Your task to perform on an android device: stop showing notifications on the lock screen Image 0: 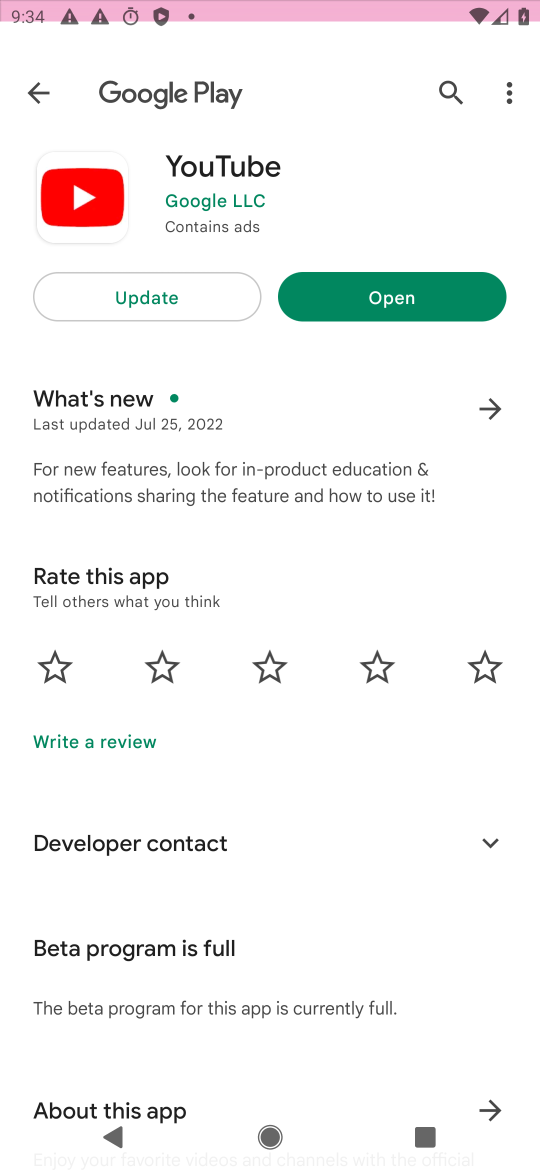
Step 0: click (344, 277)
Your task to perform on an android device: stop showing notifications on the lock screen Image 1: 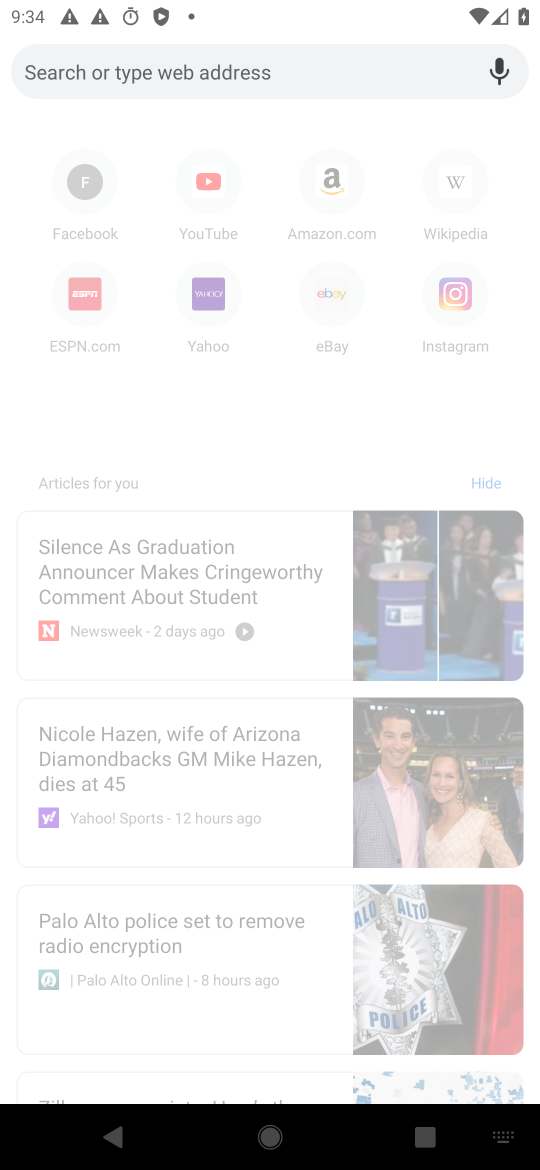
Step 1: drag from (210, 506) to (253, 247)
Your task to perform on an android device: stop showing notifications on the lock screen Image 2: 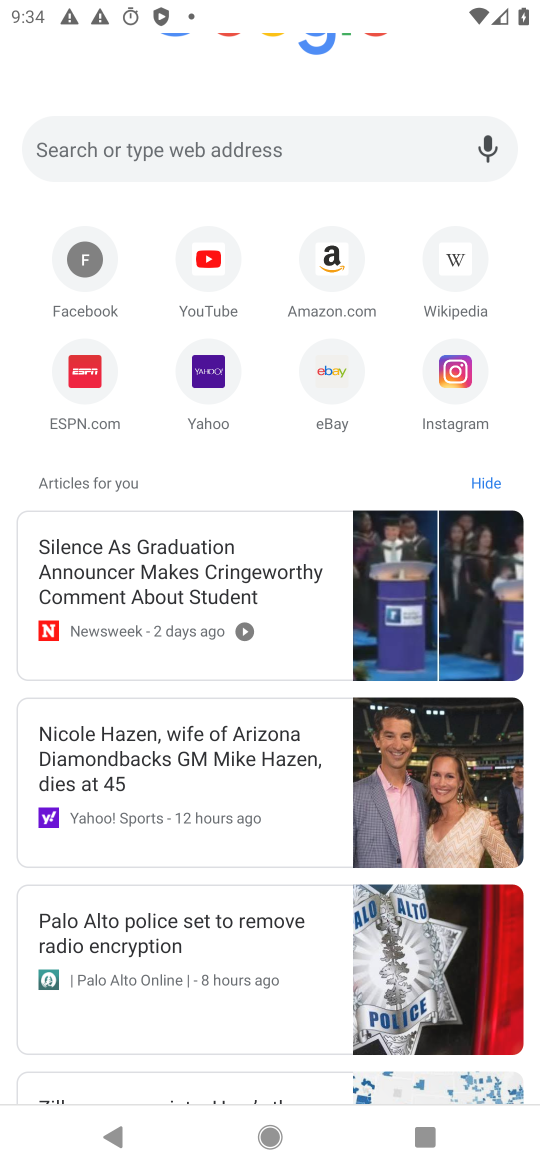
Step 2: press home button
Your task to perform on an android device: stop showing notifications on the lock screen Image 3: 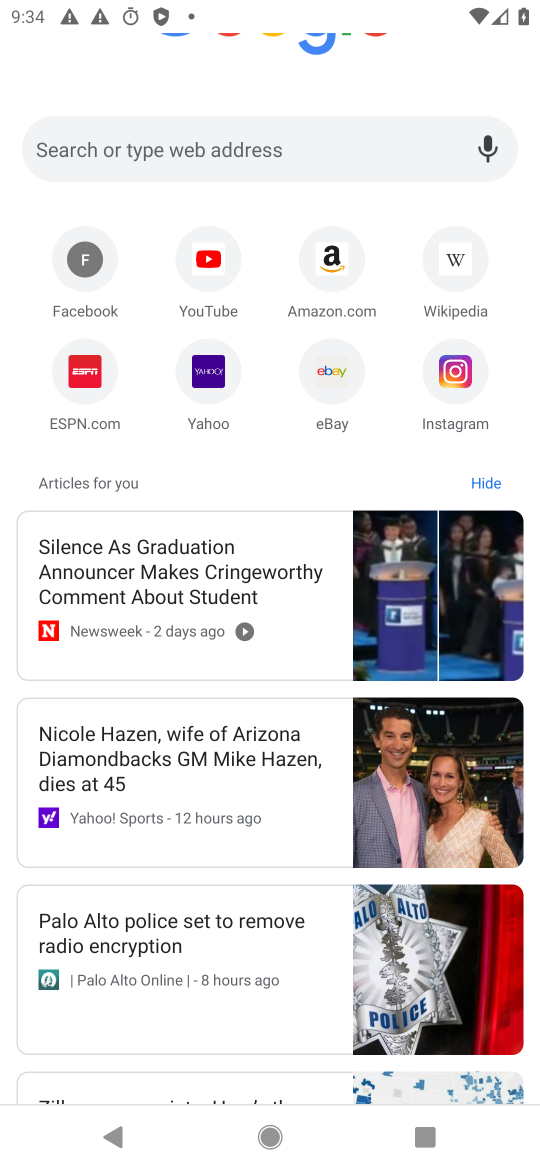
Step 3: press home button
Your task to perform on an android device: stop showing notifications on the lock screen Image 4: 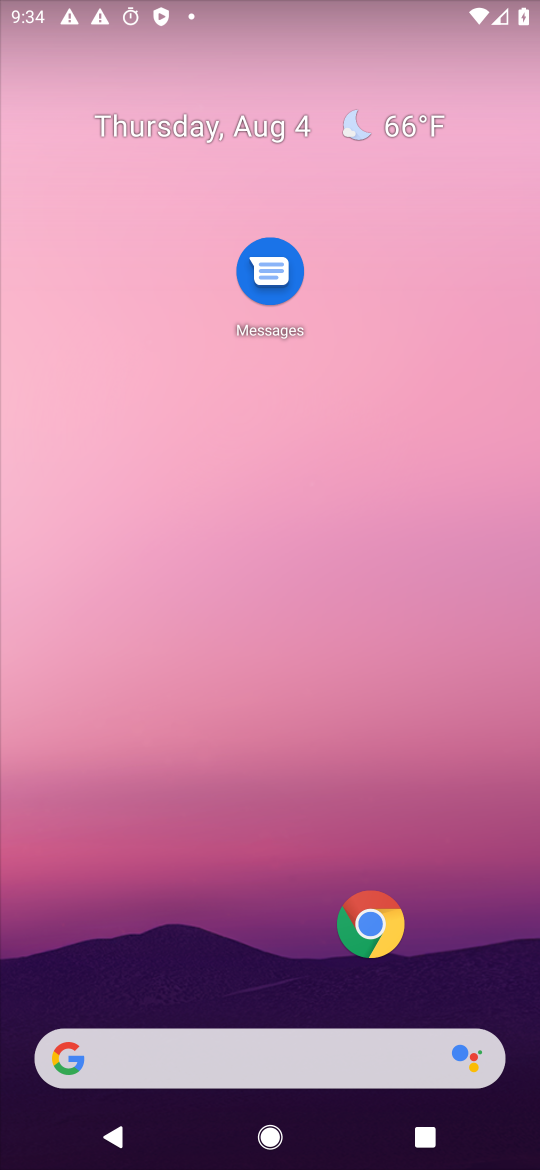
Step 4: drag from (198, 937) to (456, 361)
Your task to perform on an android device: stop showing notifications on the lock screen Image 5: 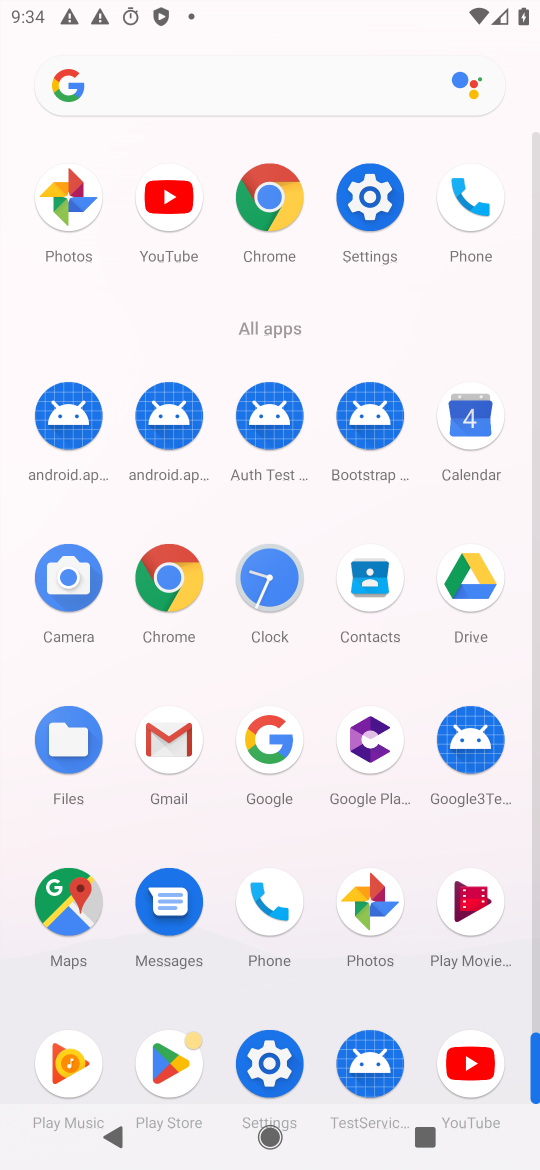
Step 5: click (370, 193)
Your task to perform on an android device: stop showing notifications on the lock screen Image 6: 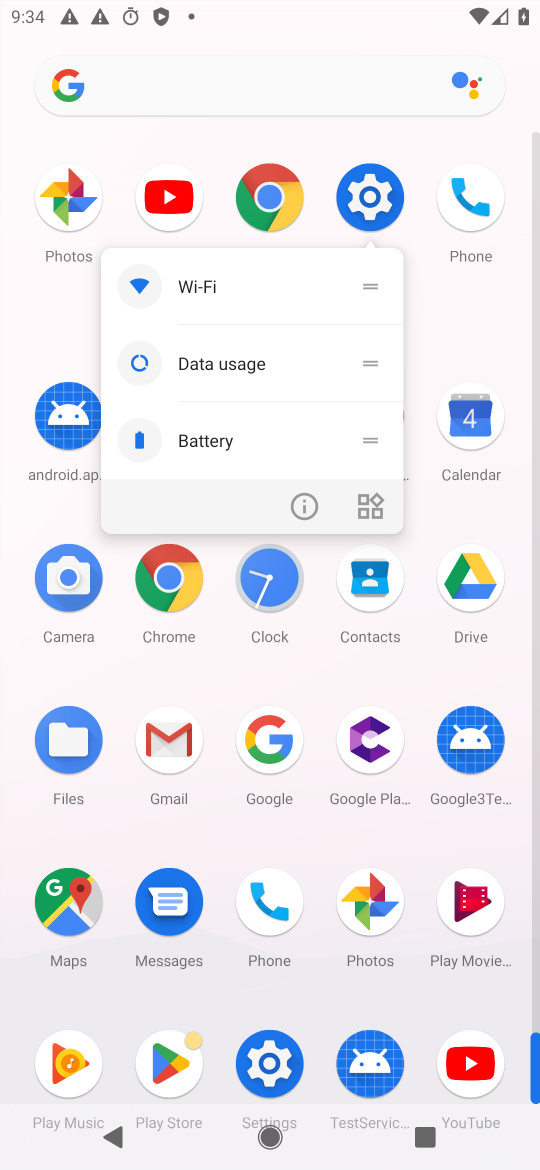
Step 6: click (301, 505)
Your task to perform on an android device: stop showing notifications on the lock screen Image 7: 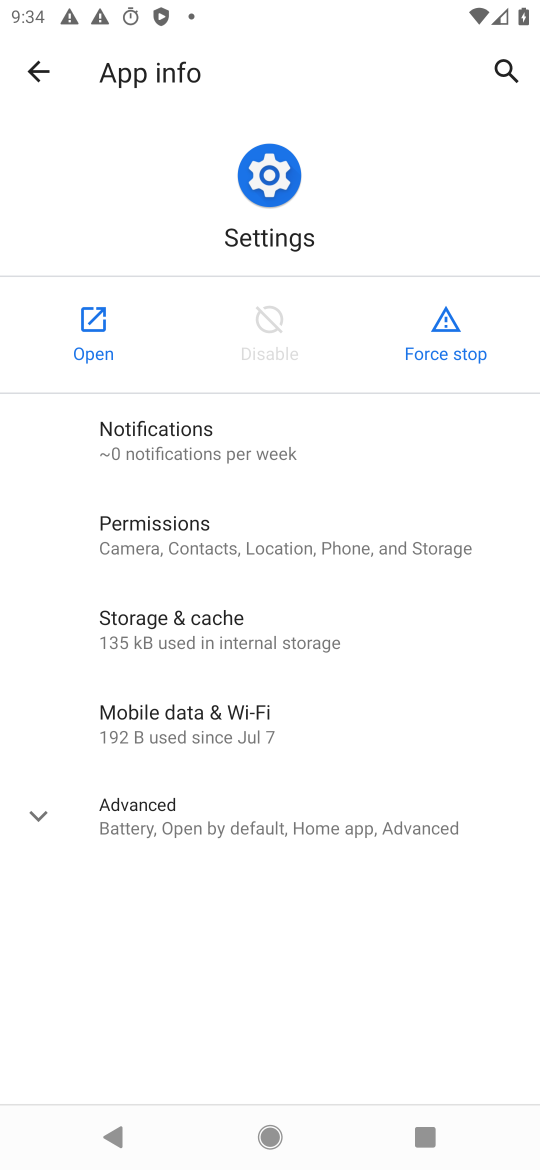
Step 7: click (86, 321)
Your task to perform on an android device: stop showing notifications on the lock screen Image 8: 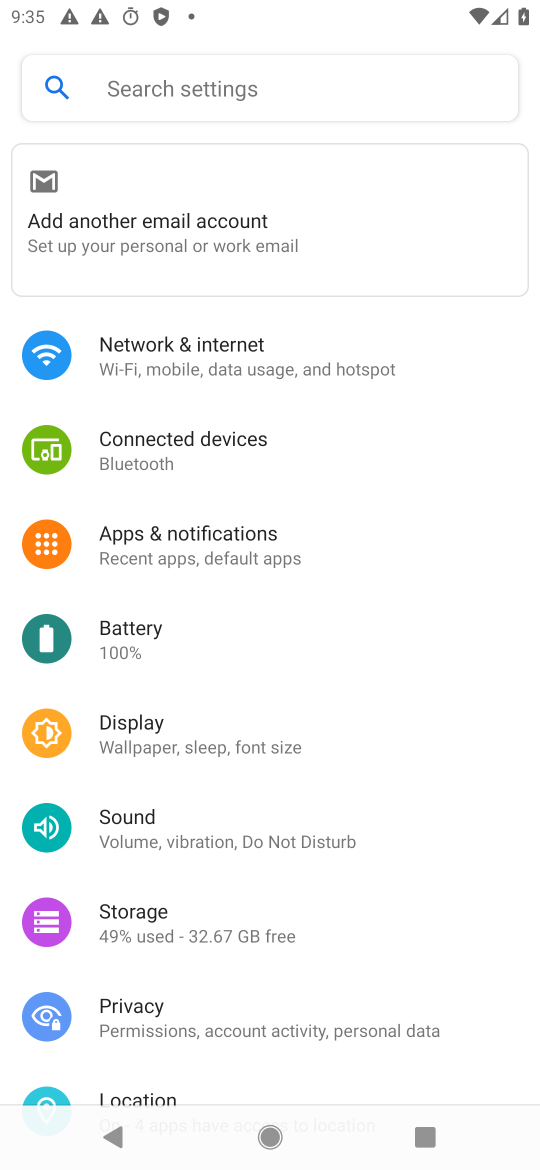
Step 8: click (196, 555)
Your task to perform on an android device: stop showing notifications on the lock screen Image 9: 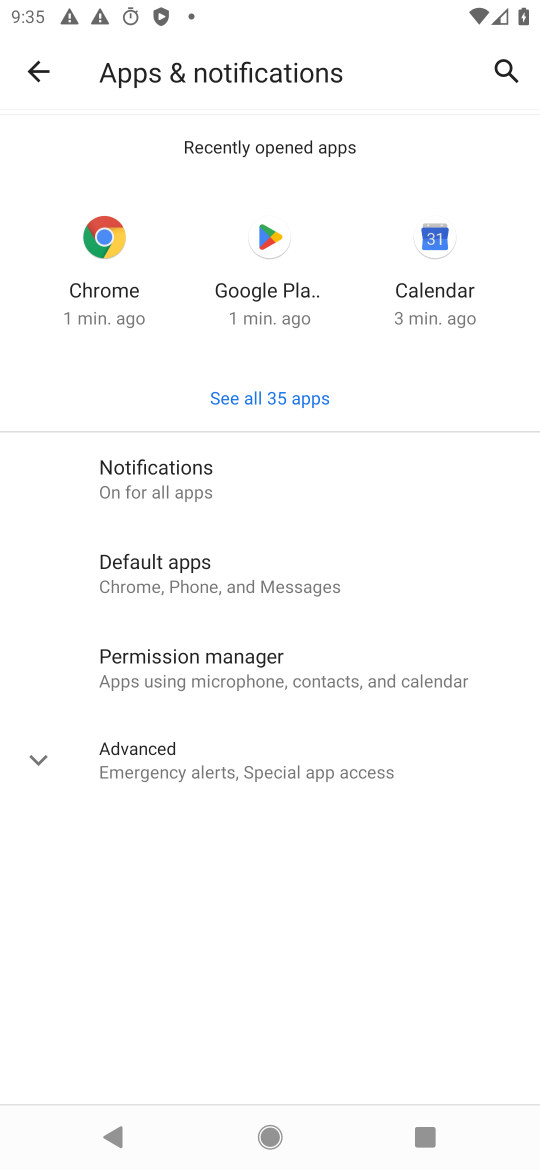
Step 9: click (292, 473)
Your task to perform on an android device: stop showing notifications on the lock screen Image 10: 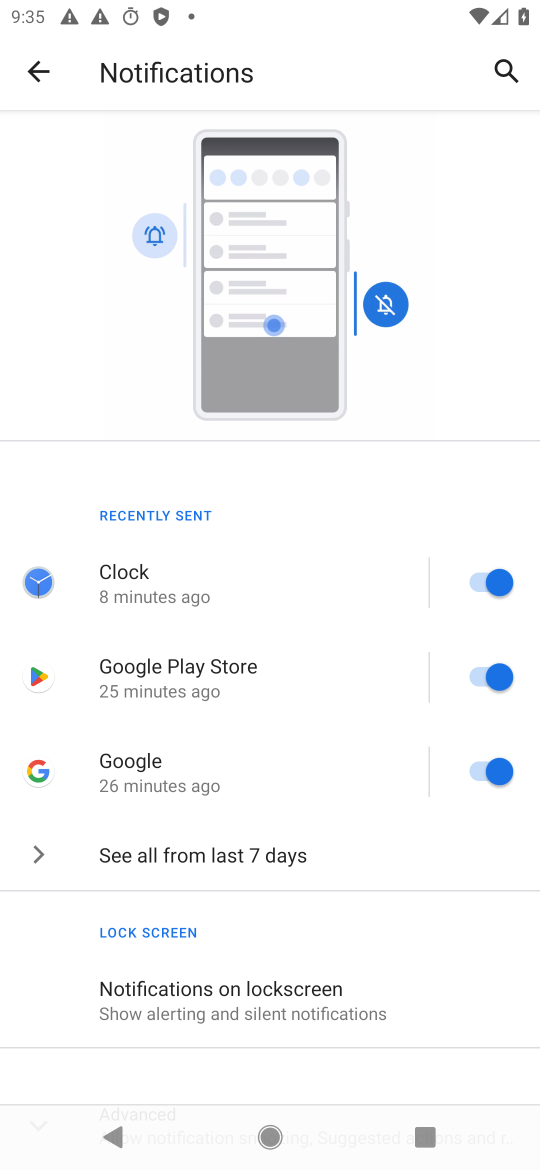
Step 10: click (250, 1004)
Your task to perform on an android device: stop showing notifications on the lock screen Image 11: 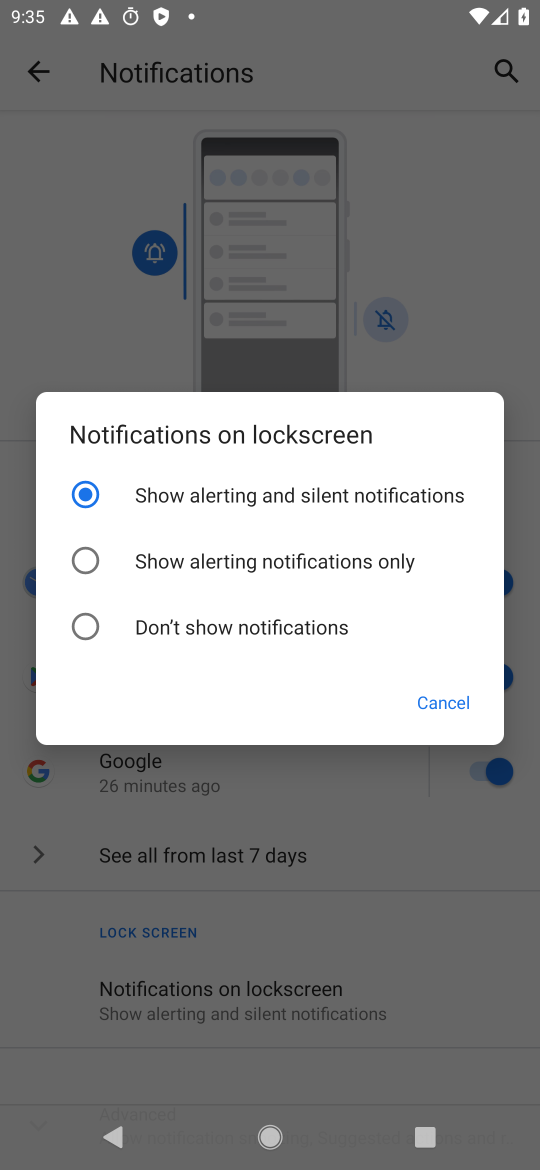
Step 11: click (91, 622)
Your task to perform on an android device: stop showing notifications on the lock screen Image 12: 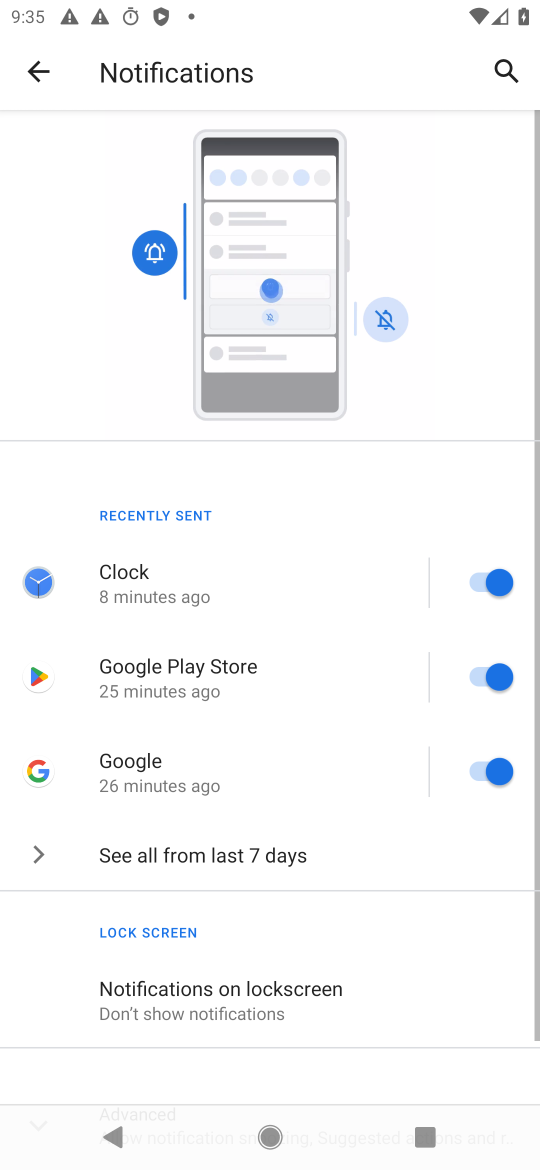
Step 12: task complete